Your task to perform on an android device: Open display settings Image 0: 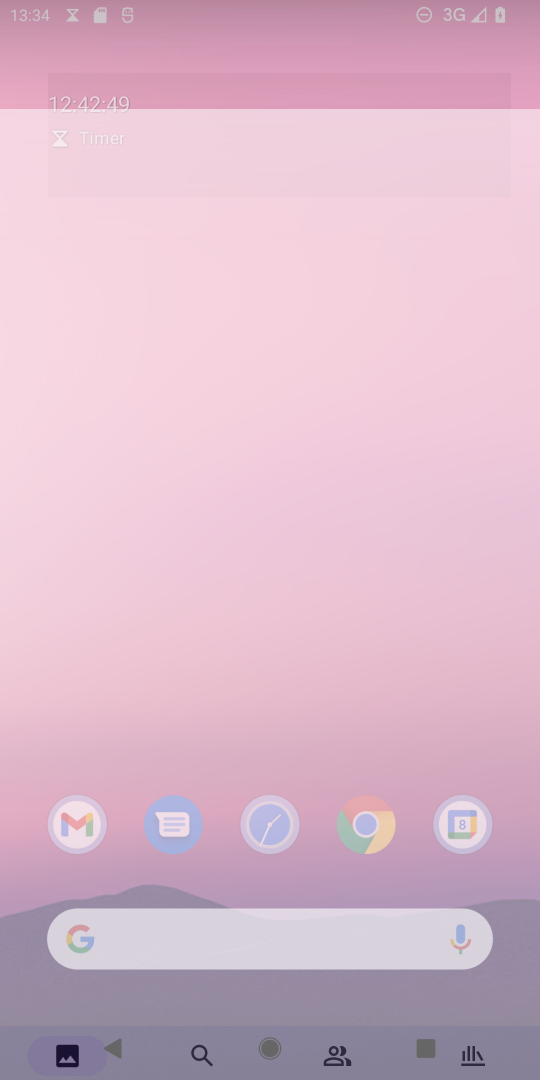
Step 0: press home button
Your task to perform on an android device: Open display settings Image 1: 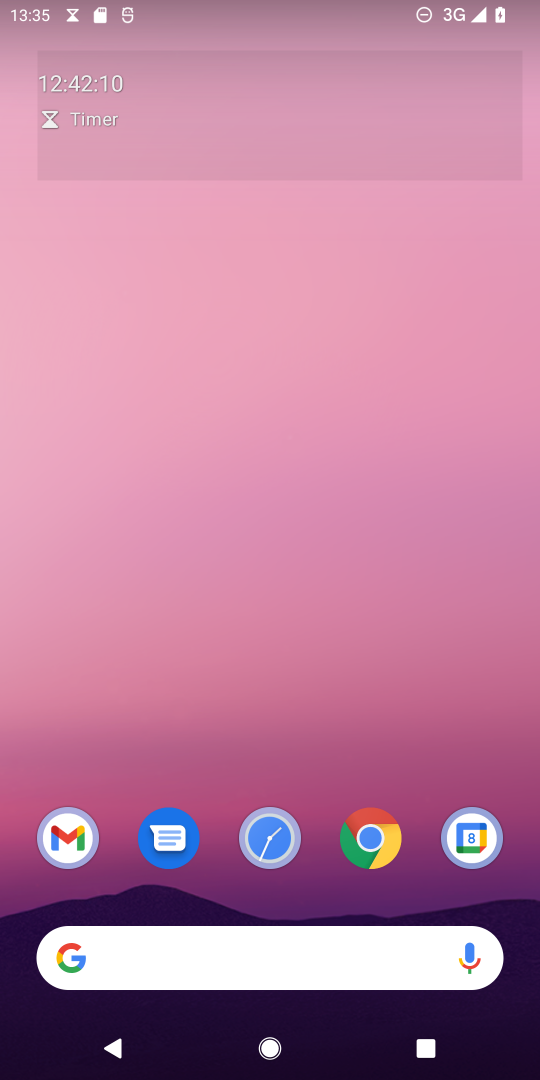
Step 1: drag from (300, 718) to (312, 12)
Your task to perform on an android device: Open display settings Image 2: 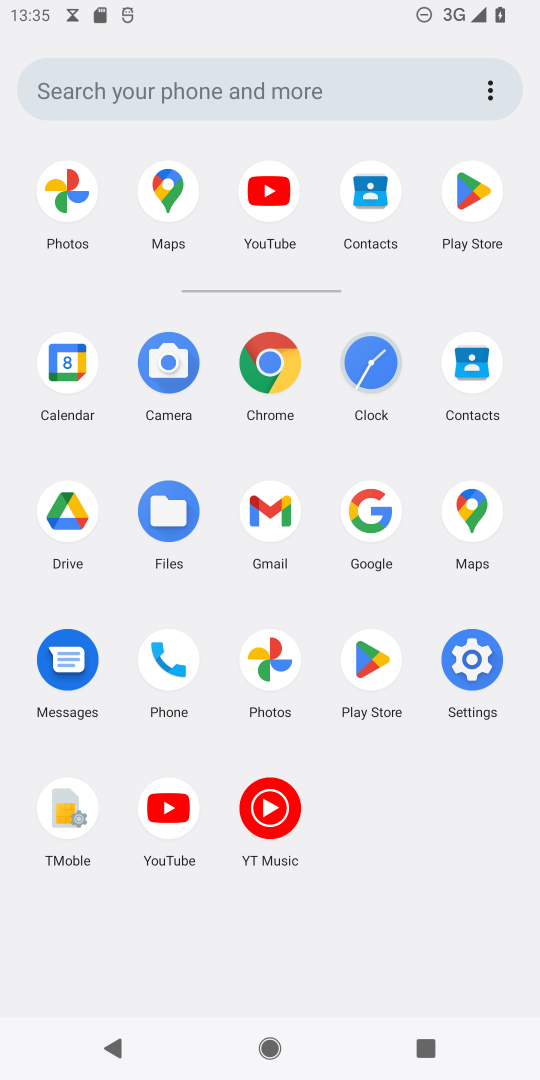
Step 2: click (467, 646)
Your task to perform on an android device: Open display settings Image 3: 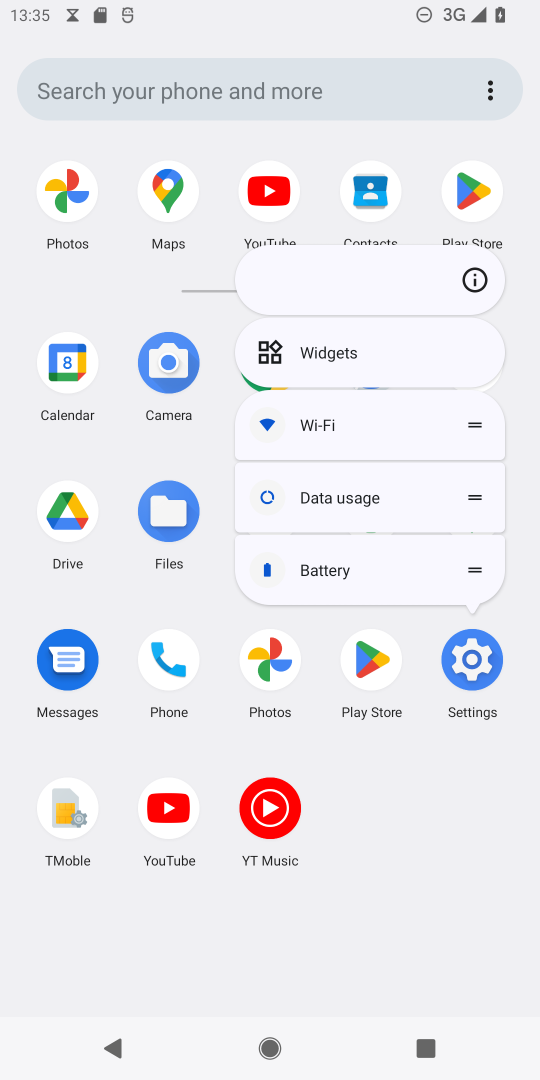
Step 3: click (466, 679)
Your task to perform on an android device: Open display settings Image 4: 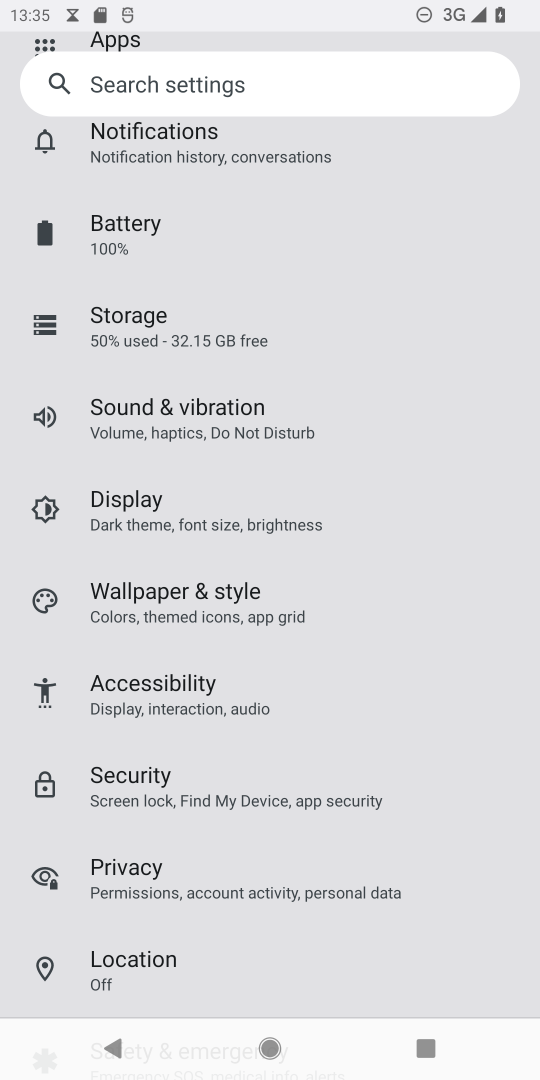
Step 4: click (122, 503)
Your task to perform on an android device: Open display settings Image 5: 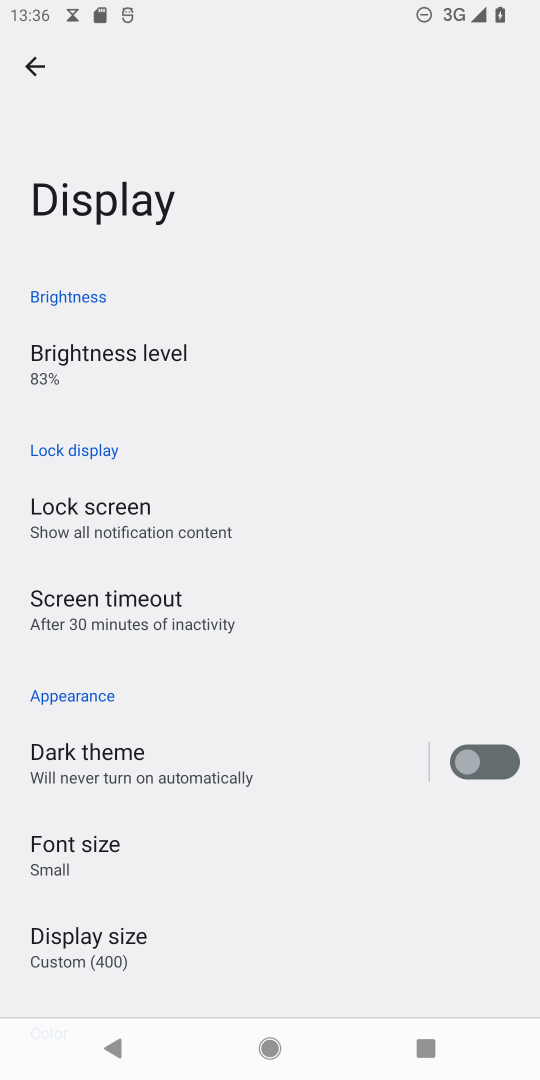
Step 5: task complete